Your task to perform on an android device: Open location settings Image 0: 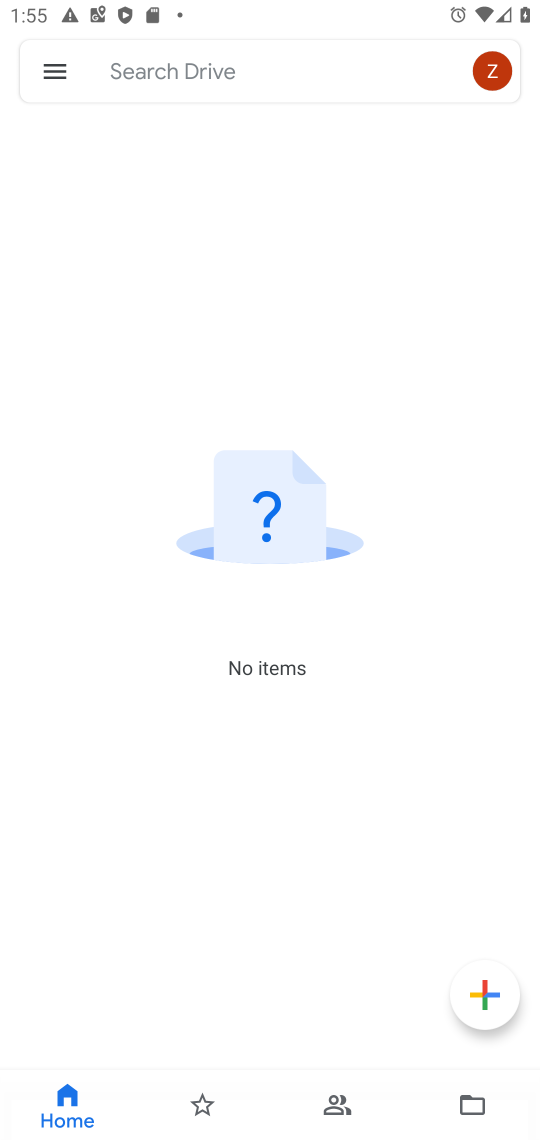
Step 0: press home button
Your task to perform on an android device: Open location settings Image 1: 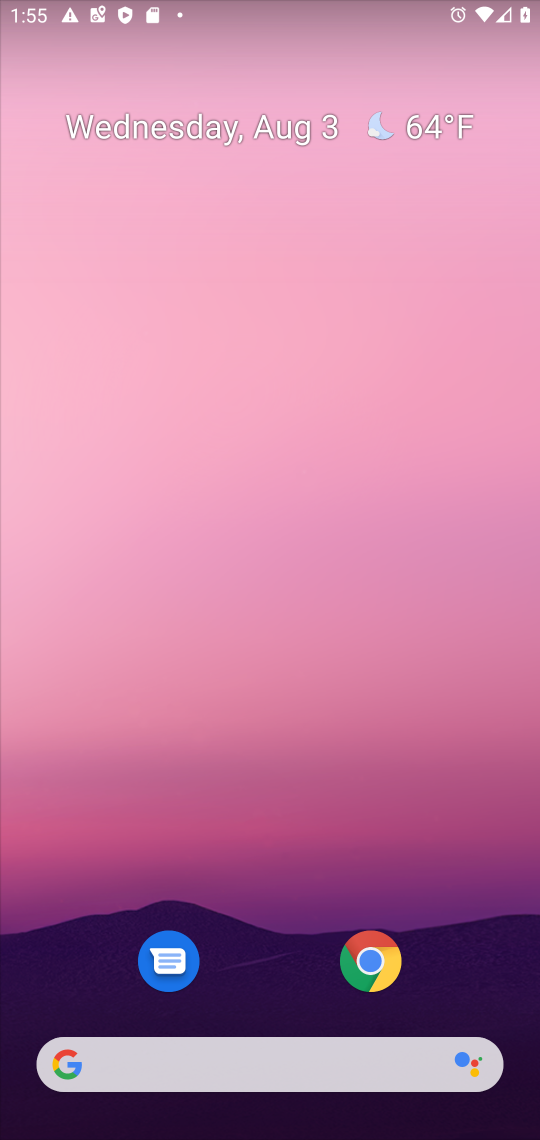
Step 1: drag from (272, 907) to (283, 68)
Your task to perform on an android device: Open location settings Image 2: 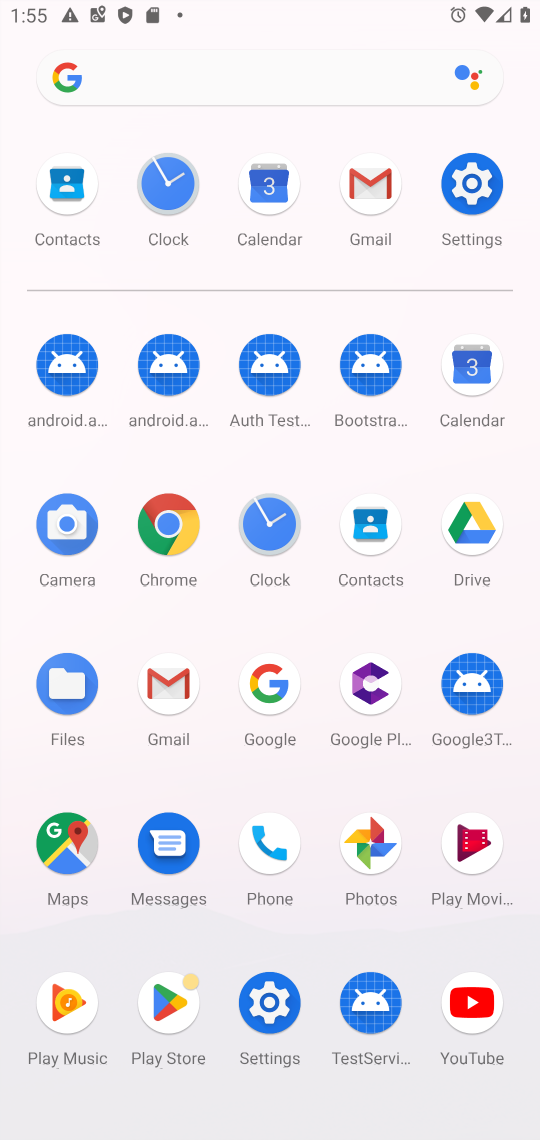
Step 2: click (460, 168)
Your task to perform on an android device: Open location settings Image 3: 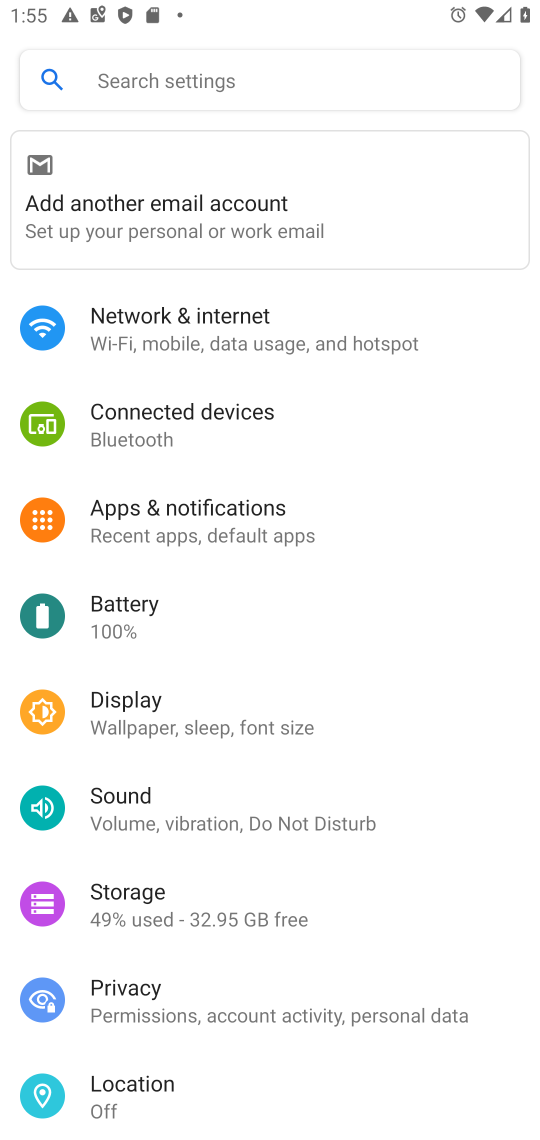
Step 3: drag from (441, 947) to (446, 506)
Your task to perform on an android device: Open location settings Image 4: 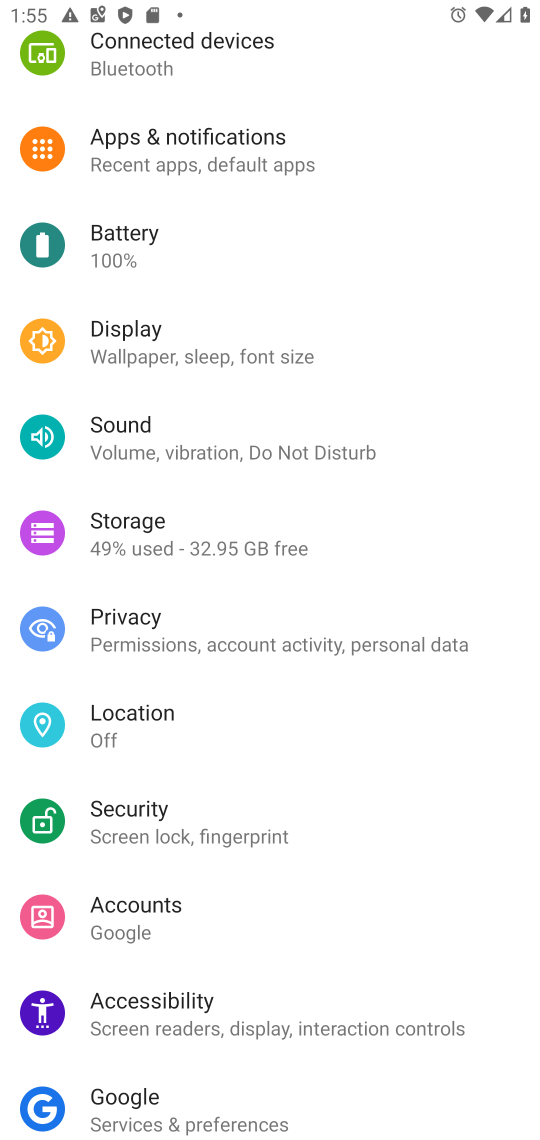
Step 4: click (115, 734)
Your task to perform on an android device: Open location settings Image 5: 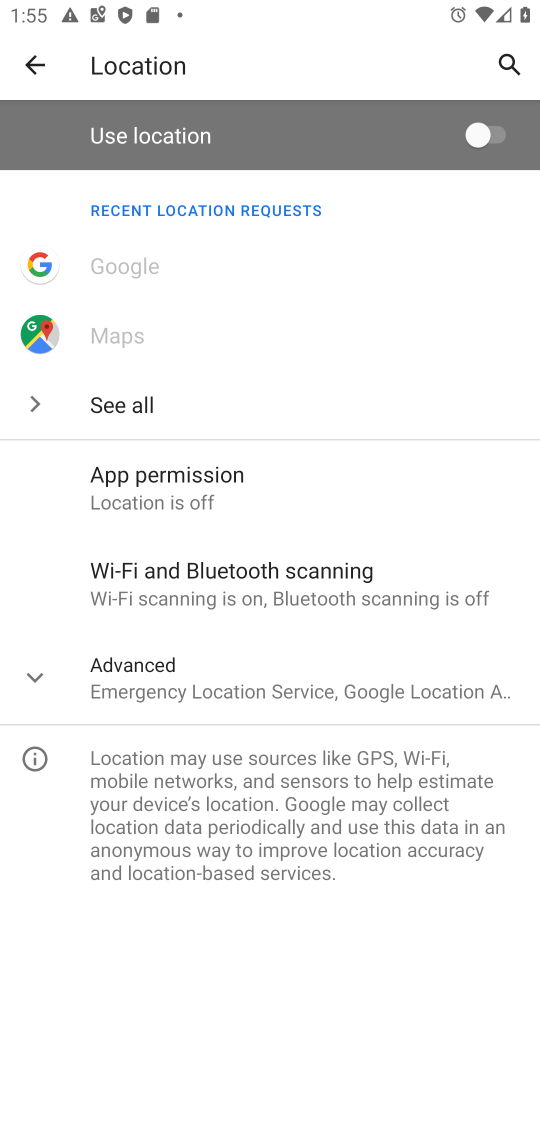
Step 5: task complete